Your task to perform on an android device: Turn off the flashlight Image 0: 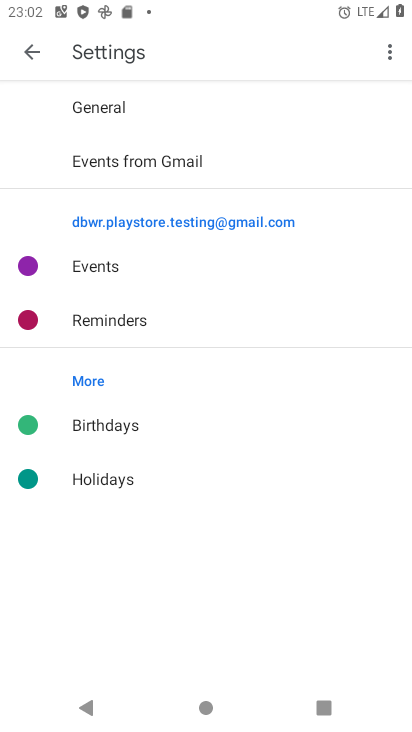
Step 0: press home button
Your task to perform on an android device: Turn off the flashlight Image 1: 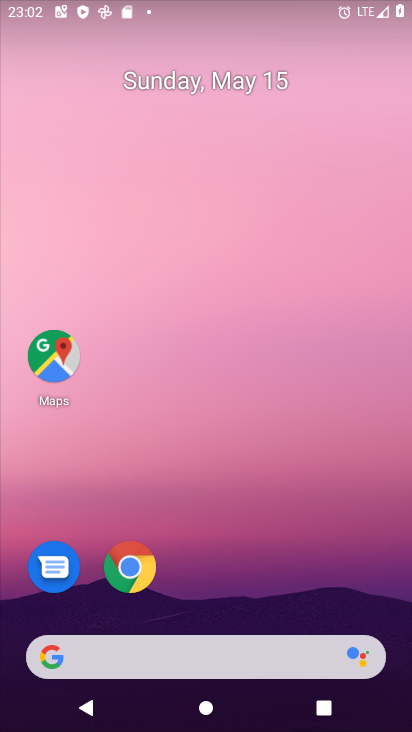
Step 1: task complete